Your task to perform on an android device: Search for Italian restaurants on Maps Image 0: 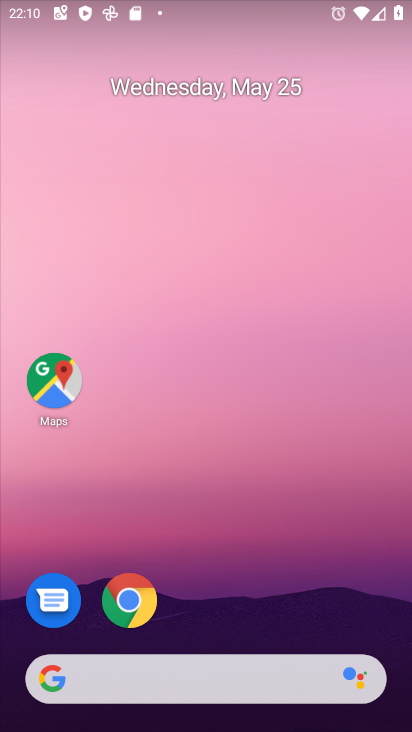
Step 0: drag from (279, 538) to (316, 96)
Your task to perform on an android device: Search for Italian restaurants on Maps Image 1: 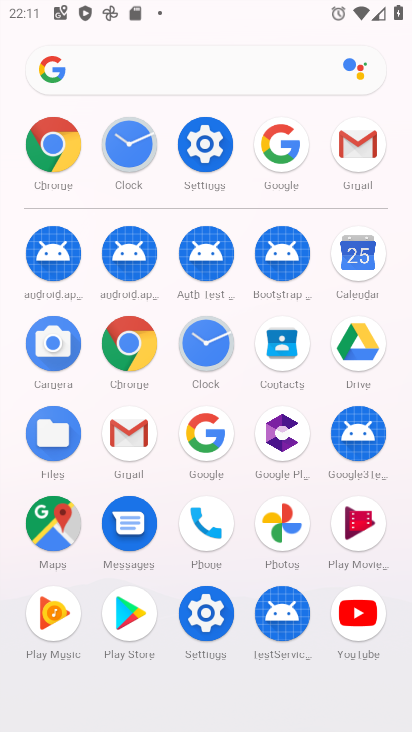
Step 1: click (42, 529)
Your task to perform on an android device: Search for Italian restaurants on Maps Image 2: 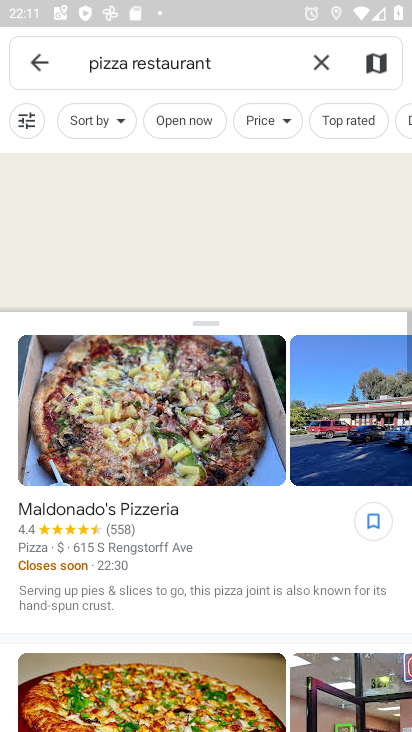
Step 2: click (320, 63)
Your task to perform on an android device: Search for Italian restaurants on Maps Image 3: 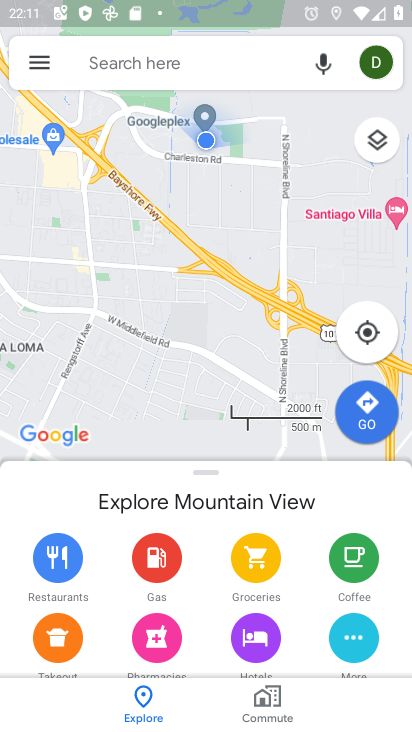
Step 3: click (211, 66)
Your task to perform on an android device: Search for Italian restaurants on Maps Image 4: 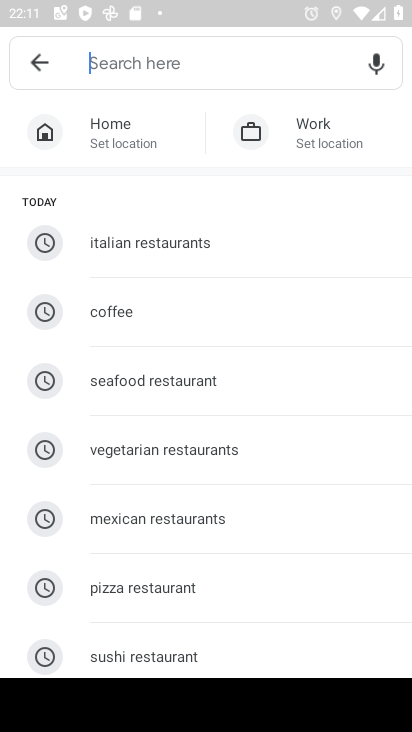
Step 4: type ""
Your task to perform on an android device: Search for Italian restaurants on Maps Image 5: 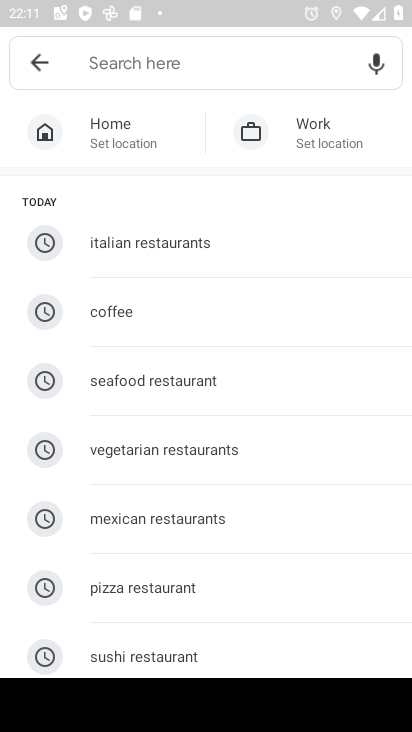
Step 5: type "italian restaurants "
Your task to perform on an android device: Search for Italian restaurants on Maps Image 6: 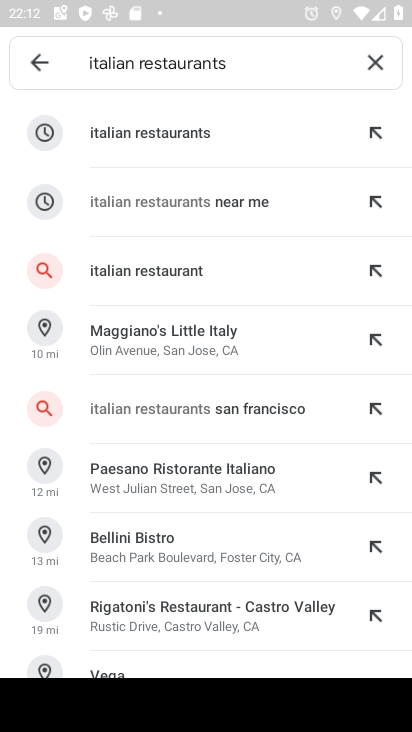
Step 6: click (215, 137)
Your task to perform on an android device: Search for Italian restaurants on Maps Image 7: 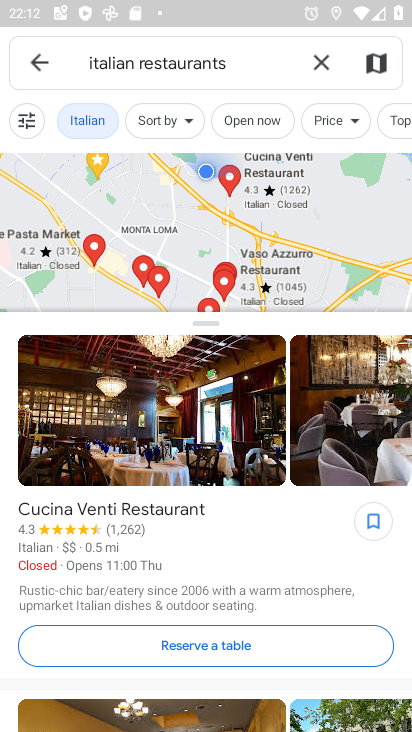
Step 7: task complete